Your task to perform on an android device: turn off wifi Image 0: 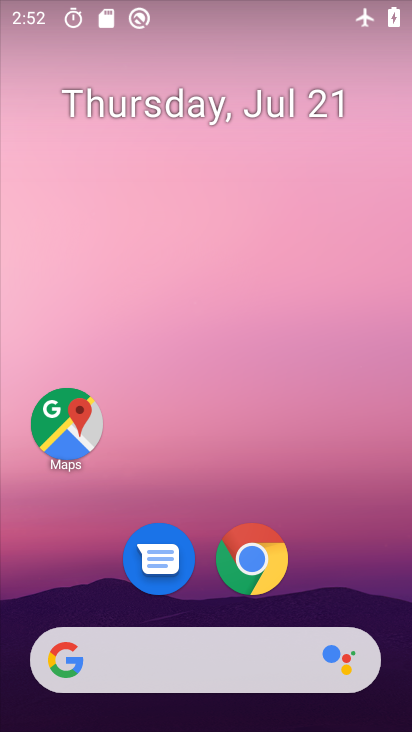
Step 0: drag from (361, 570) to (369, 97)
Your task to perform on an android device: turn off wifi Image 1: 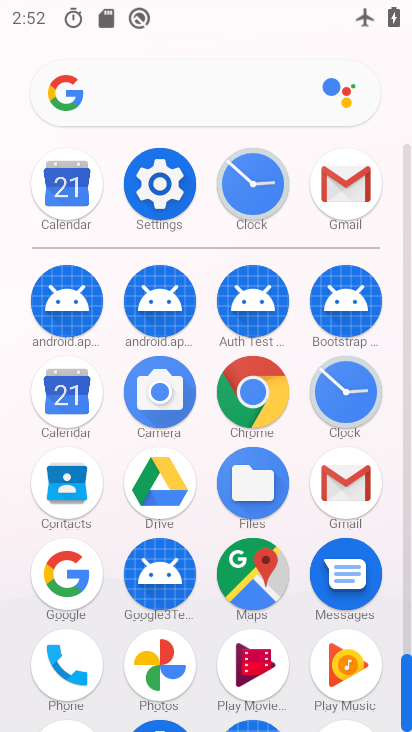
Step 1: click (167, 186)
Your task to perform on an android device: turn off wifi Image 2: 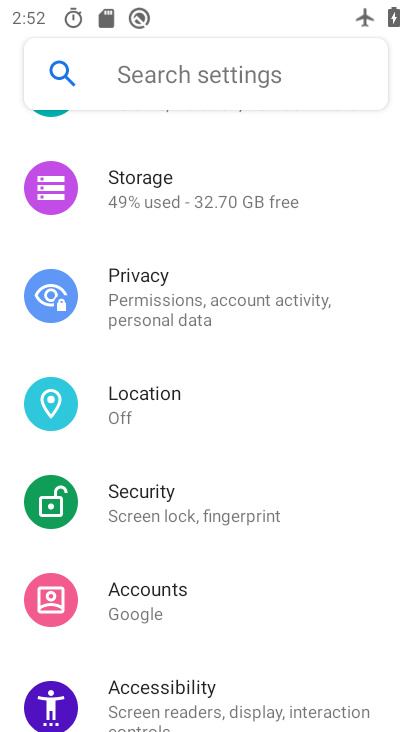
Step 2: drag from (340, 482) to (337, 343)
Your task to perform on an android device: turn off wifi Image 3: 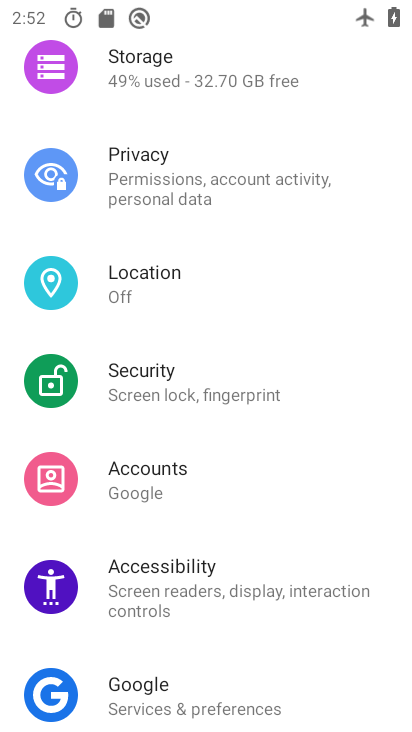
Step 3: drag from (343, 487) to (350, 350)
Your task to perform on an android device: turn off wifi Image 4: 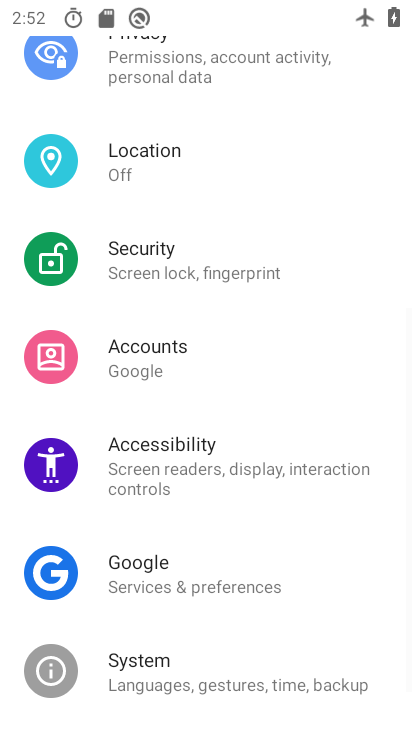
Step 4: drag from (349, 532) to (350, 358)
Your task to perform on an android device: turn off wifi Image 5: 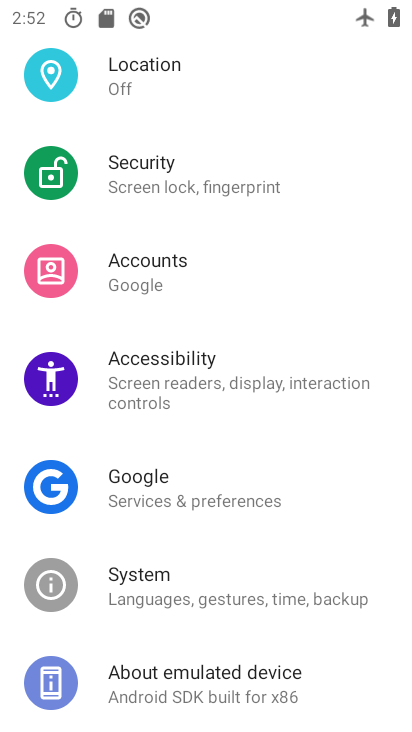
Step 5: drag from (341, 517) to (334, 355)
Your task to perform on an android device: turn off wifi Image 6: 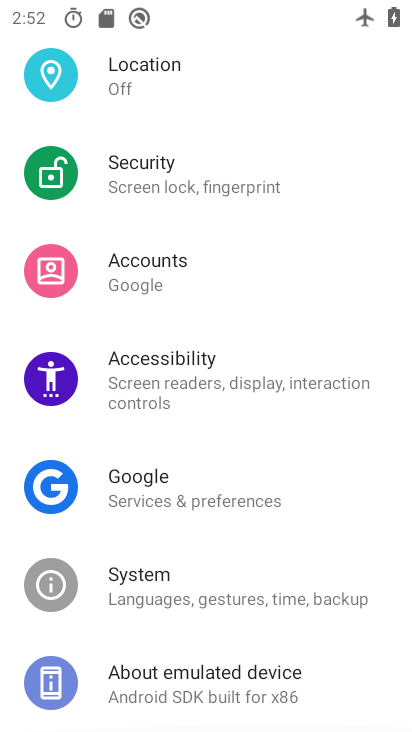
Step 6: drag from (333, 217) to (328, 378)
Your task to perform on an android device: turn off wifi Image 7: 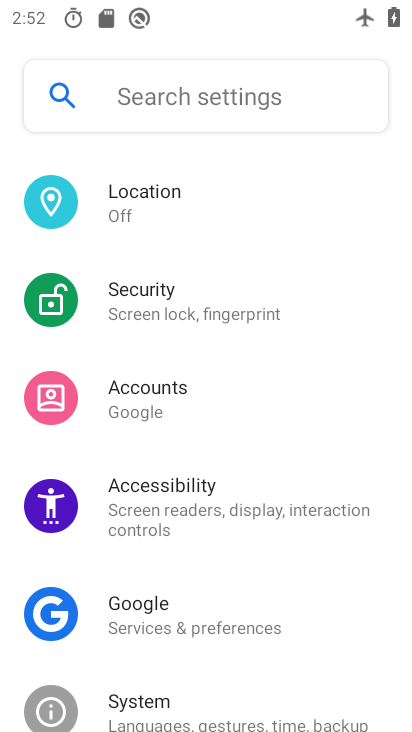
Step 7: drag from (330, 261) to (332, 401)
Your task to perform on an android device: turn off wifi Image 8: 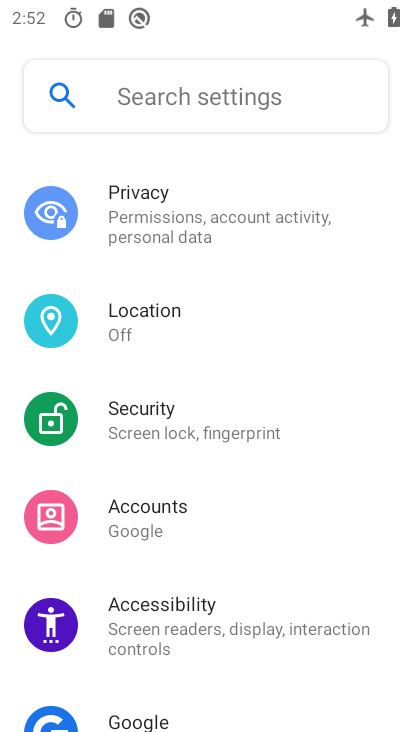
Step 8: drag from (343, 250) to (342, 383)
Your task to perform on an android device: turn off wifi Image 9: 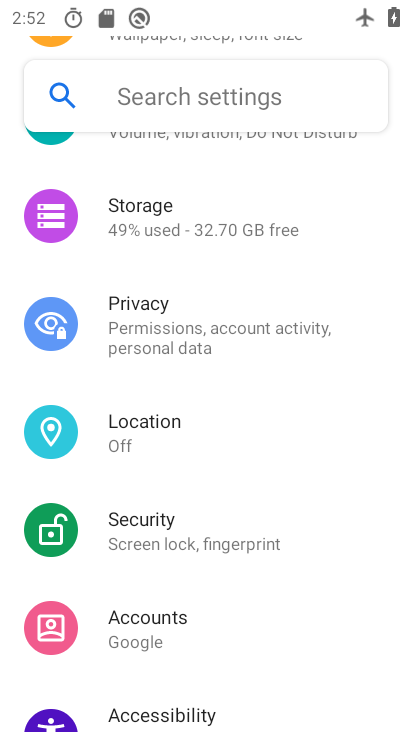
Step 9: drag from (343, 220) to (350, 425)
Your task to perform on an android device: turn off wifi Image 10: 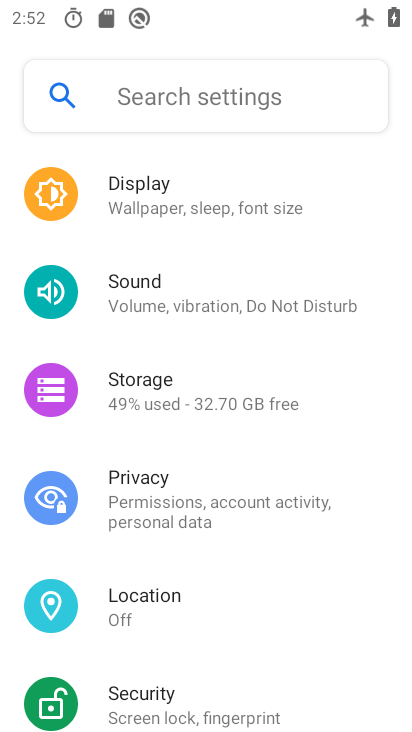
Step 10: drag from (348, 199) to (349, 379)
Your task to perform on an android device: turn off wifi Image 11: 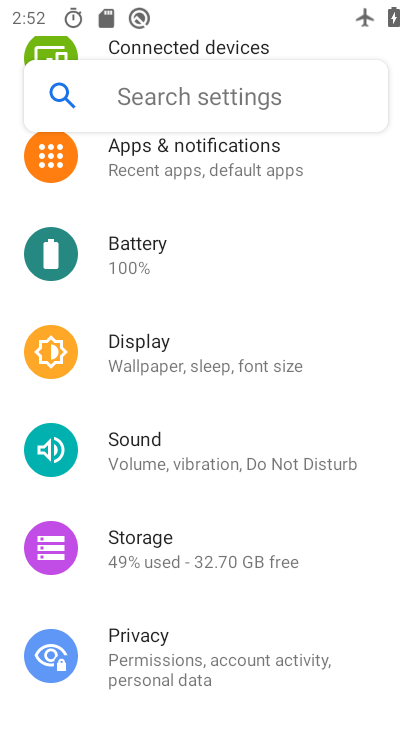
Step 11: drag from (310, 218) to (320, 346)
Your task to perform on an android device: turn off wifi Image 12: 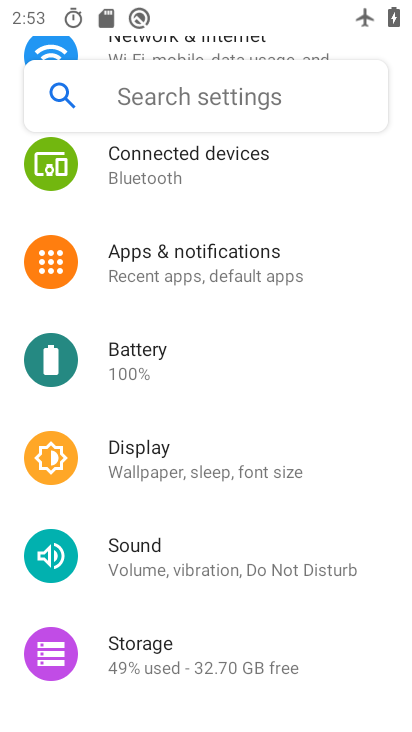
Step 12: drag from (336, 198) to (335, 402)
Your task to perform on an android device: turn off wifi Image 13: 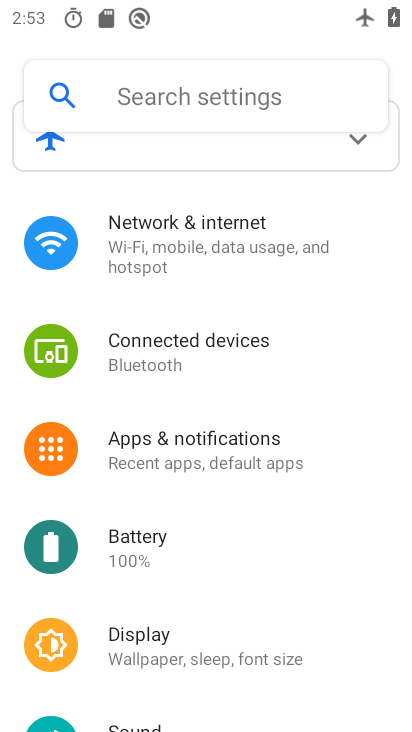
Step 13: click (280, 216)
Your task to perform on an android device: turn off wifi Image 14: 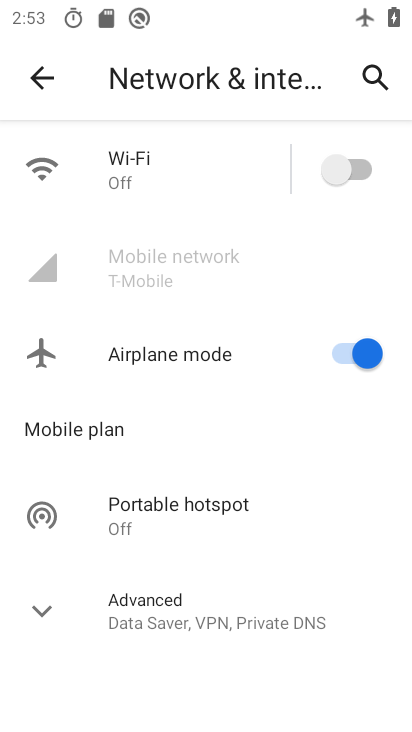
Step 14: task complete